Your task to perform on an android device: set default search engine in the chrome app Image 0: 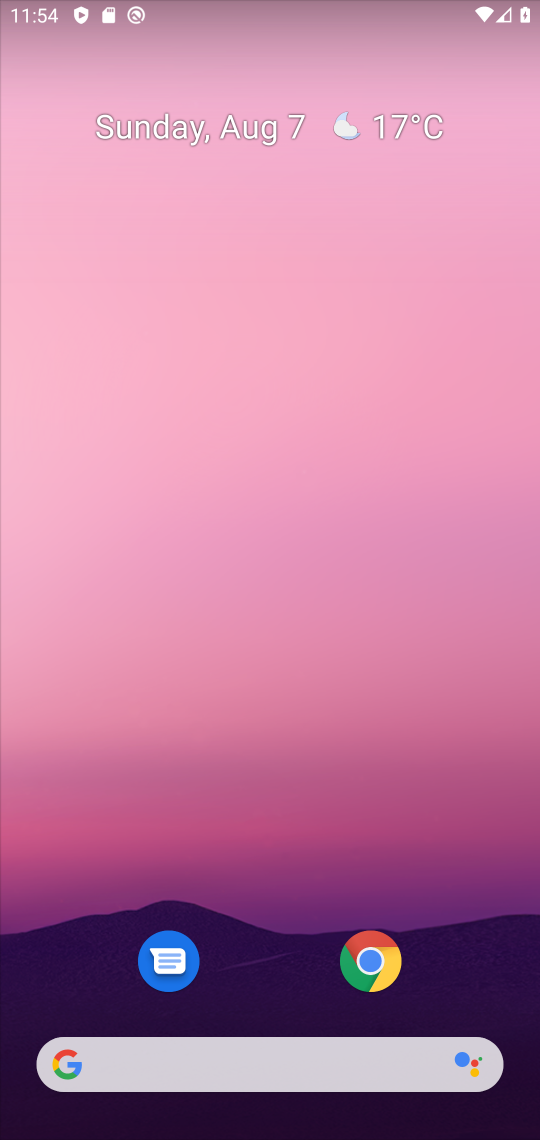
Step 0: click (274, 353)
Your task to perform on an android device: set default search engine in the chrome app Image 1: 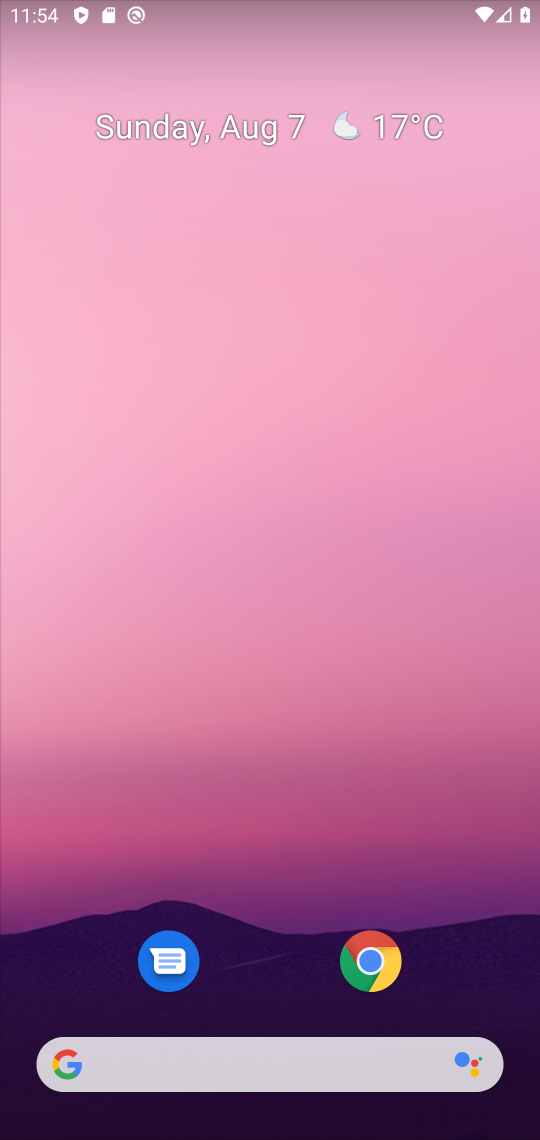
Step 1: click (383, 979)
Your task to perform on an android device: set default search engine in the chrome app Image 2: 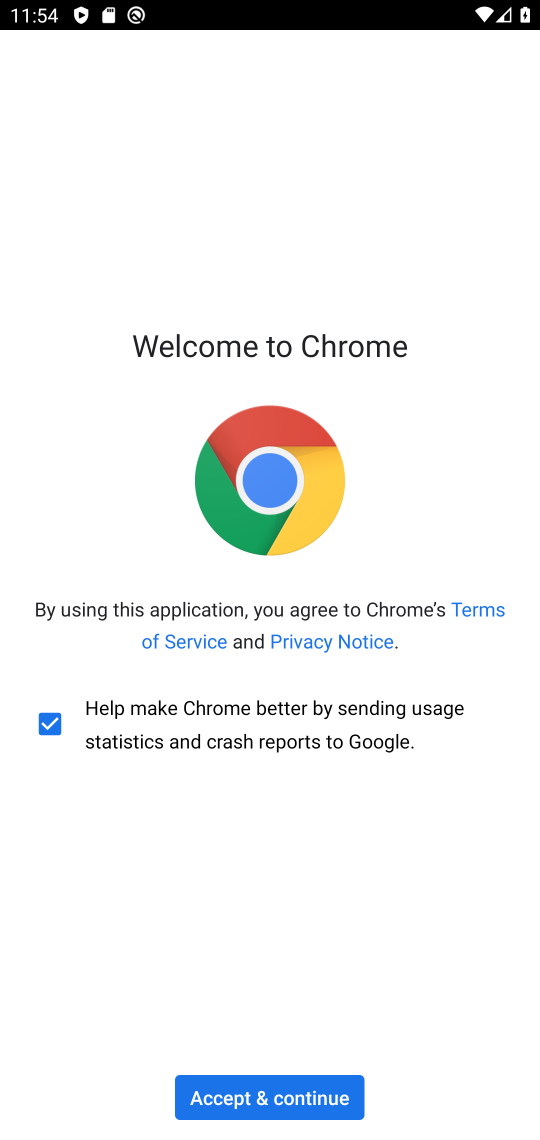
Step 2: click (251, 1106)
Your task to perform on an android device: set default search engine in the chrome app Image 3: 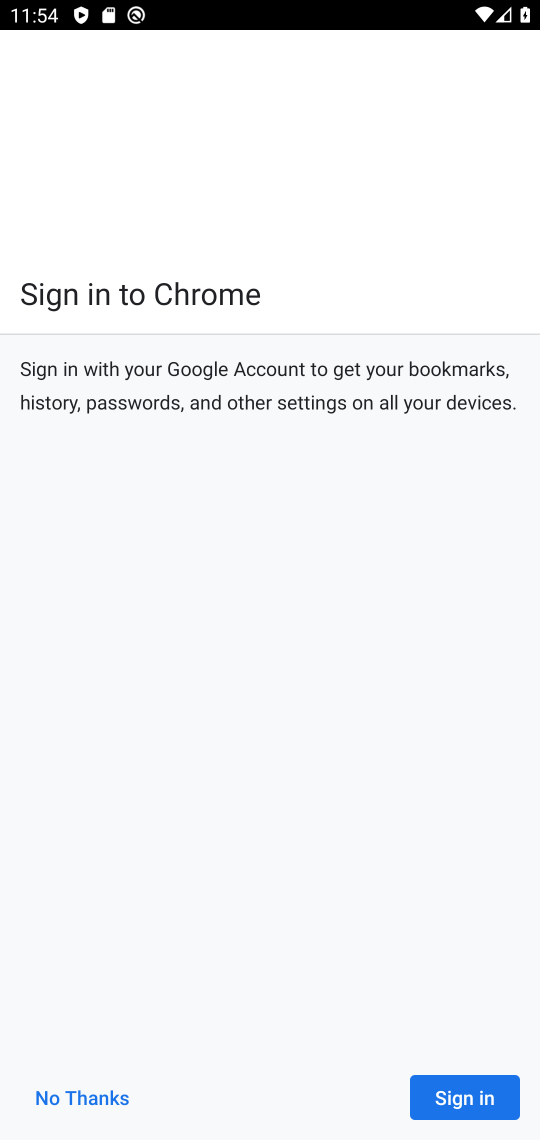
Step 3: click (497, 1101)
Your task to perform on an android device: set default search engine in the chrome app Image 4: 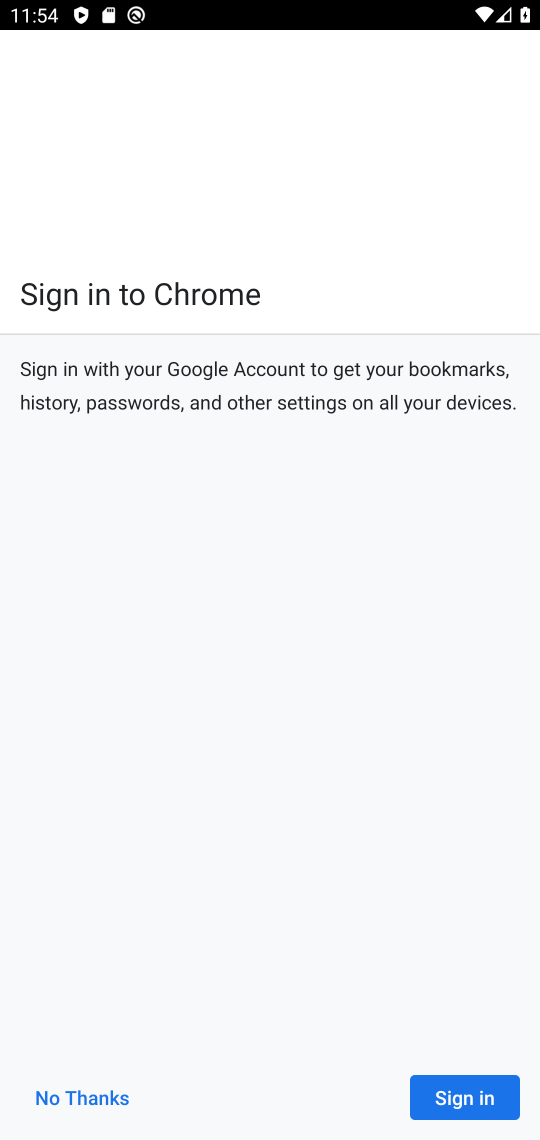
Step 4: click (497, 1101)
Your task to perform on an android device: set default search engine in the chrome app Image 5: 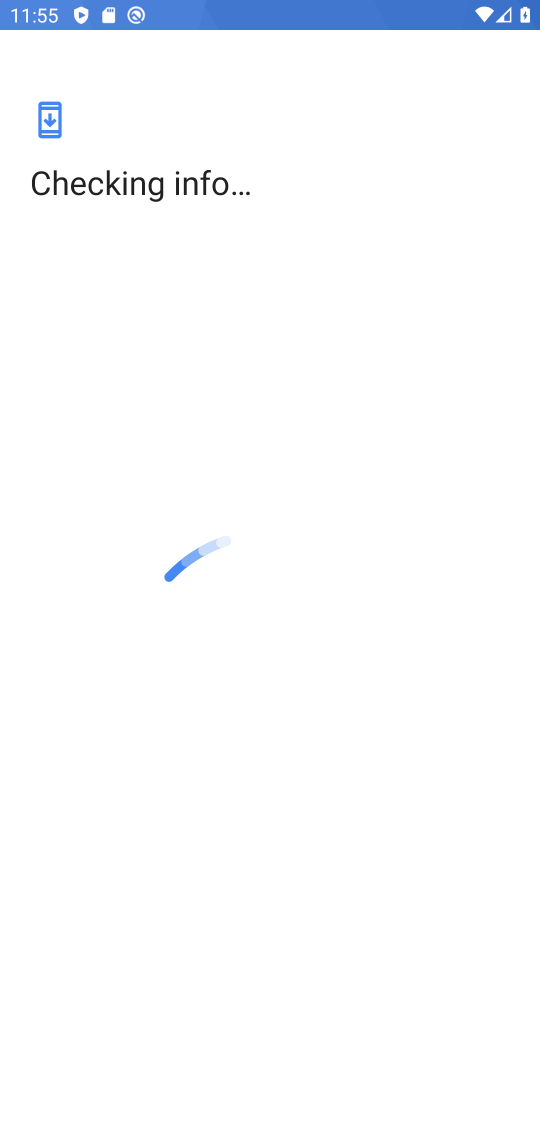
Step 5: press back button
Your task to perform on an android device: set default search engine in the chrome app Image 6: 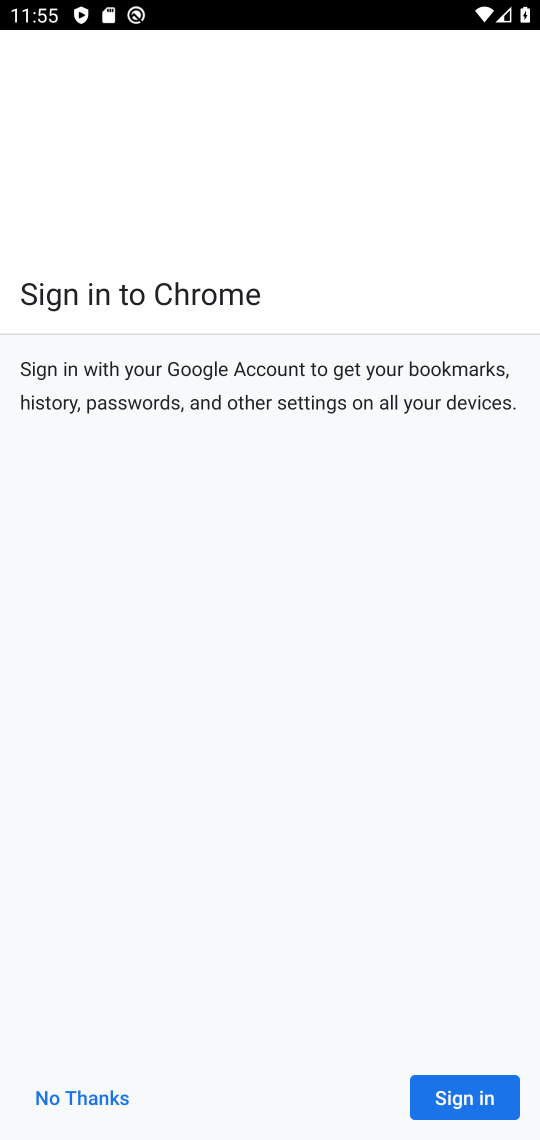
Step 6: click (507, 1099)
Your task to perform on an android device: set default search engine in the chrome app Image 7: 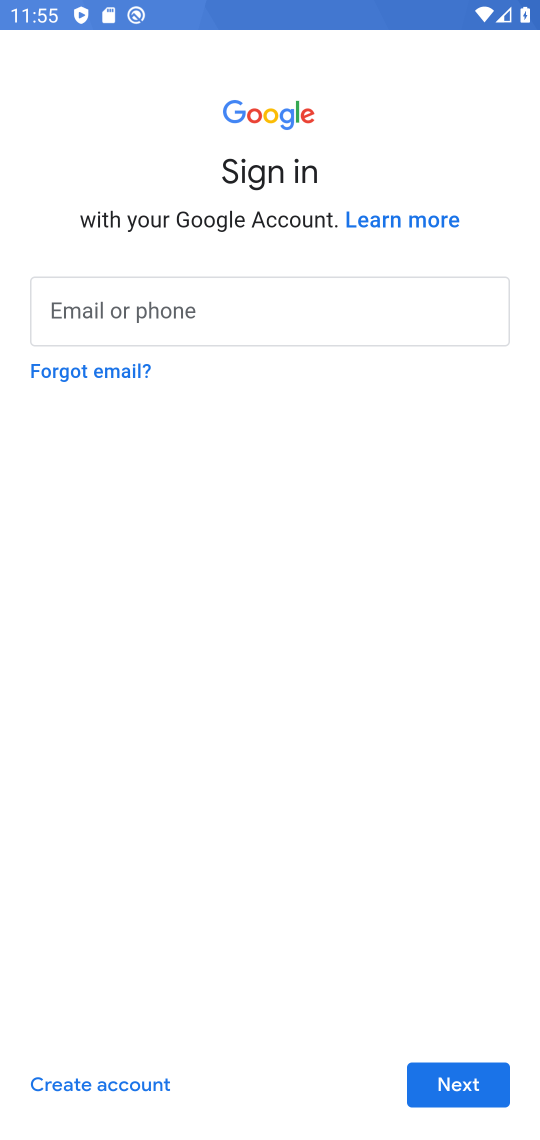
Step 7: task complete